Your task to perform on an android device: Open calendar and show me the second week of next month Image 0: 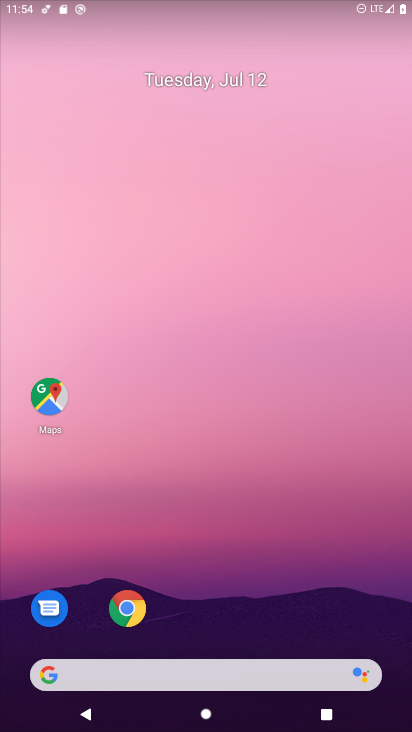
Step 0: click (230, 82)
Your task to perform on an android device: Open calendar and show me the second week of next month Image 1: 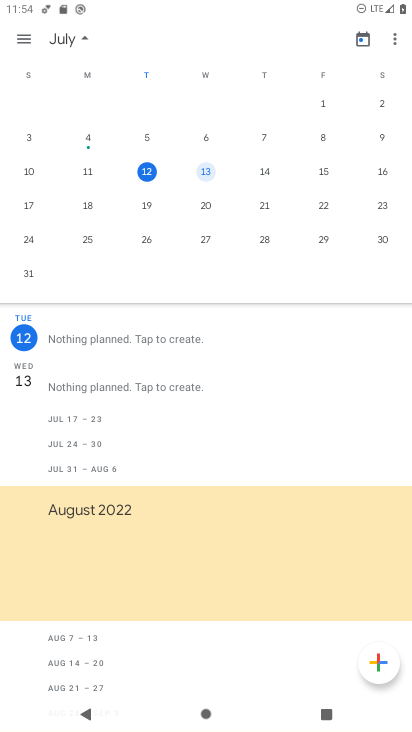
Step 1: drag from (394, 258) to (75, 265)
Your task to perform on an android device: Open calendar and show me the second week of next month Image 2: 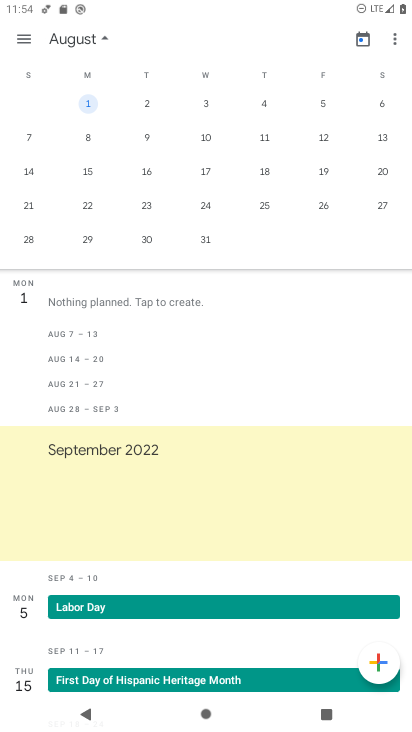
Step 2: click (259, 142)
Your task to perform on an android device: Open calendar and show me the second week of next month Image 3: 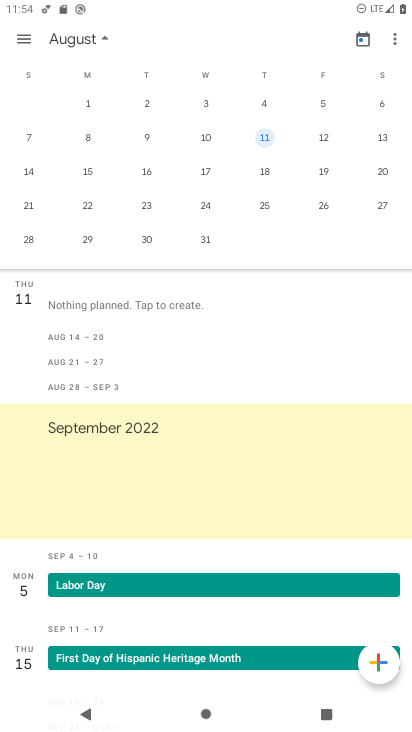
Step 3: task complete